Your task to perform on an android device: Who is the prime minister of the United Kingdom? Image 0: 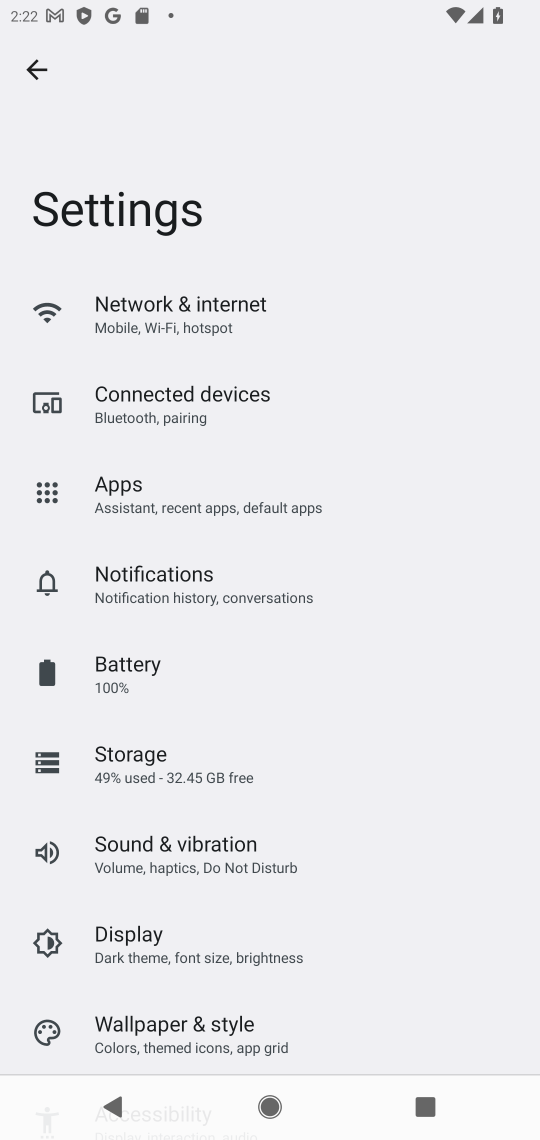
Step 0: press home button
Your task to perform on an android device: Who is the prime minister of the United Kingdom? Image 1: 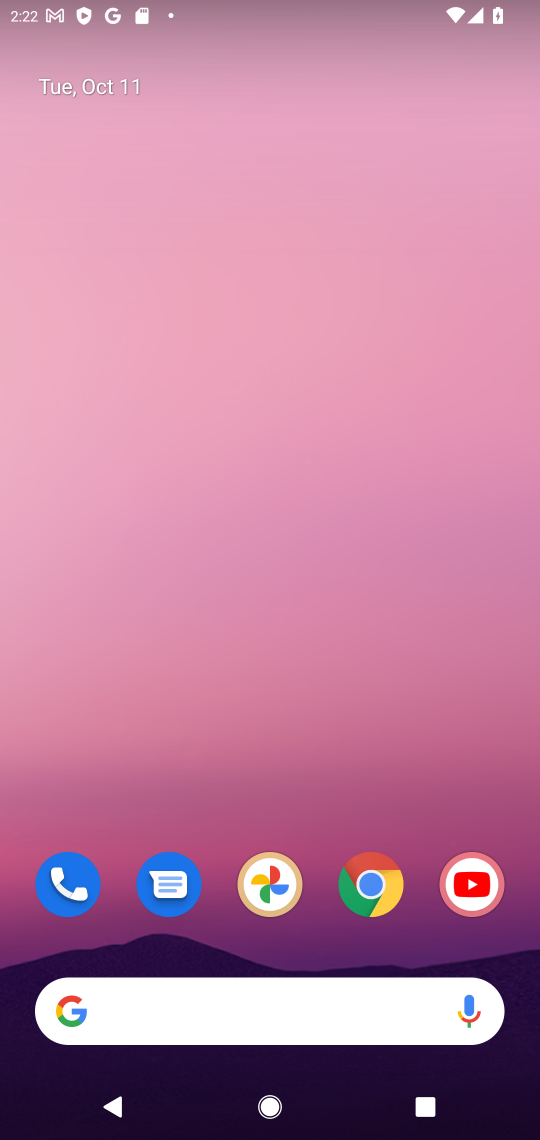
Step 1: click (367, 885)
Your task to perform on an android device: Who is the prime minister of the United Kingdom? Image 2: 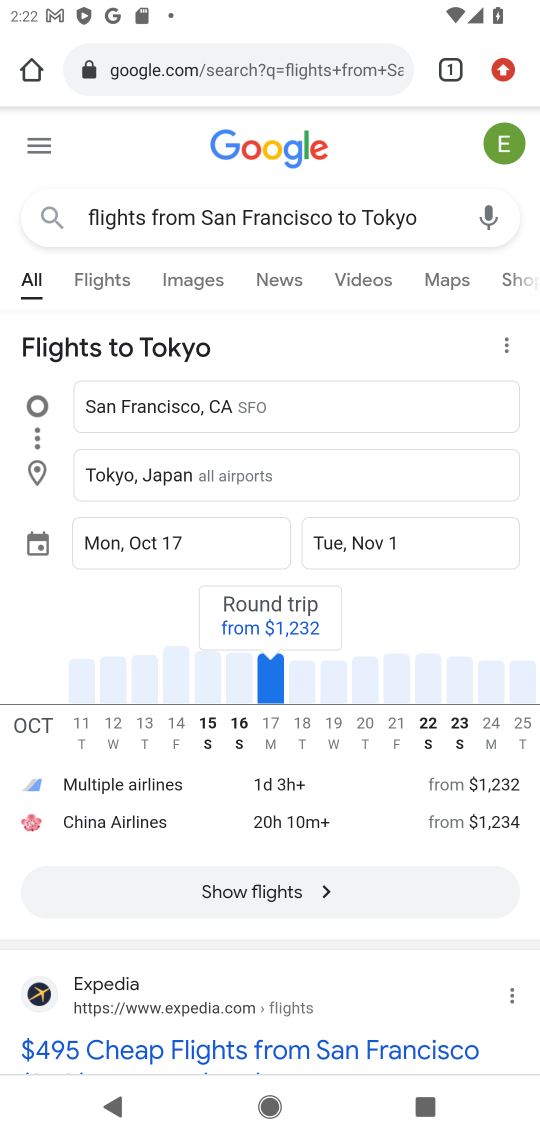
Step 2: click (324, 77)
Your task to perform on an android device: Who is the prime minister of the United Kingdom? Image 3: 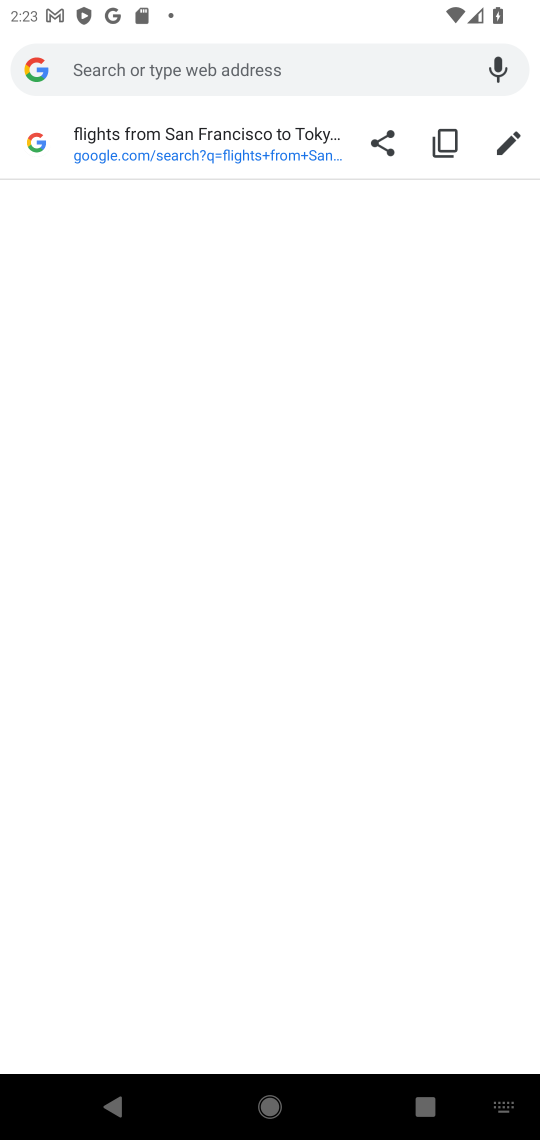
Step 3: type "Who is the prime minister of the United Kingdom"
Your task to perform on an android device: Who is the prime minister of the United Kingdom? Image 4: 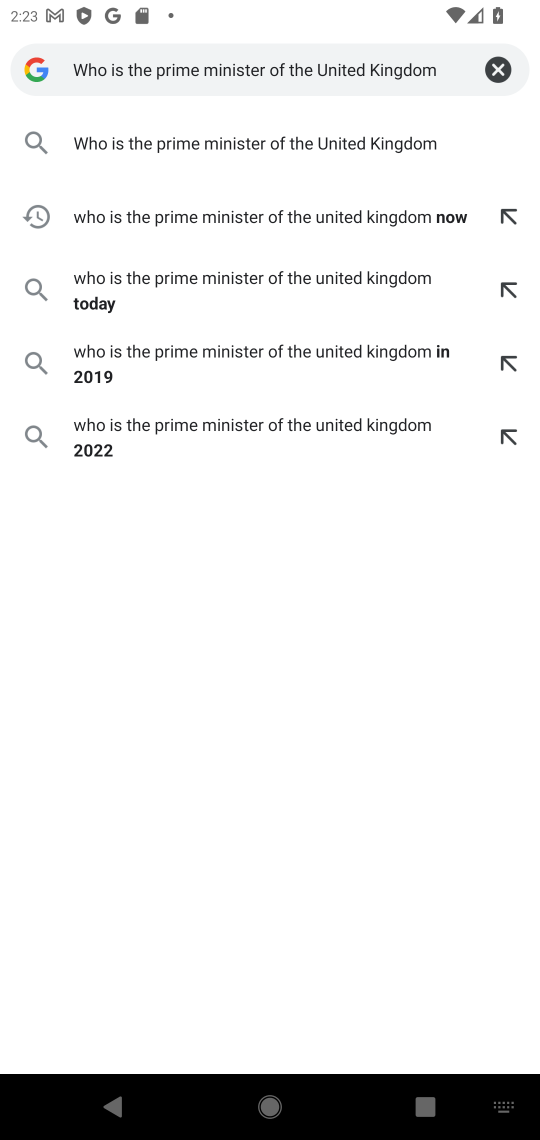
Step 4: click (349, 141)
Your task to perform on an android device: Who is the prime minister of the United Kingdom? Image 5: 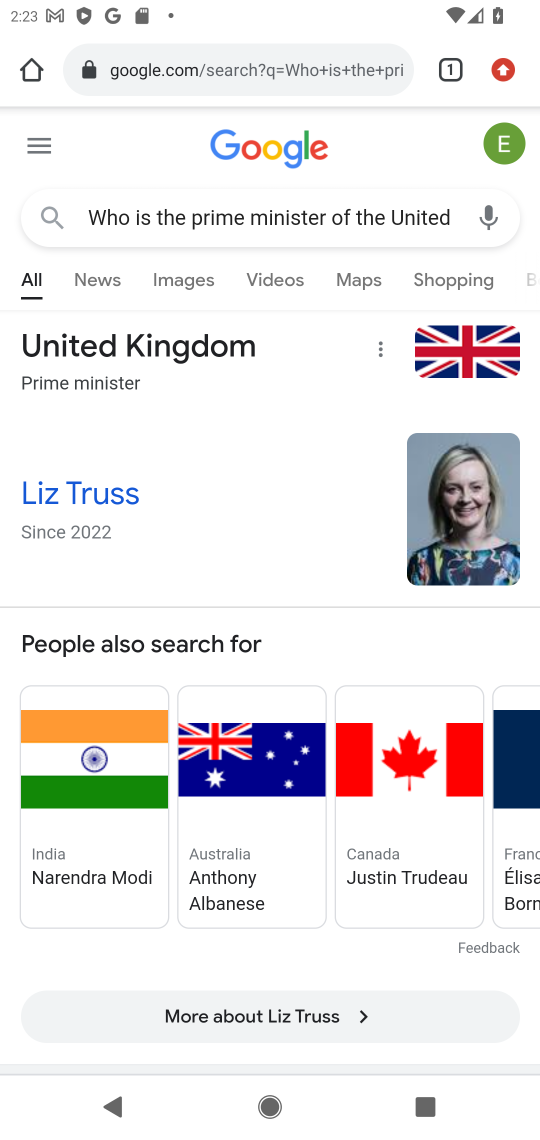
Step 5: task complete